Your task to perform on an android device: read, delete, or share a saved page in the chrome app Image 0: 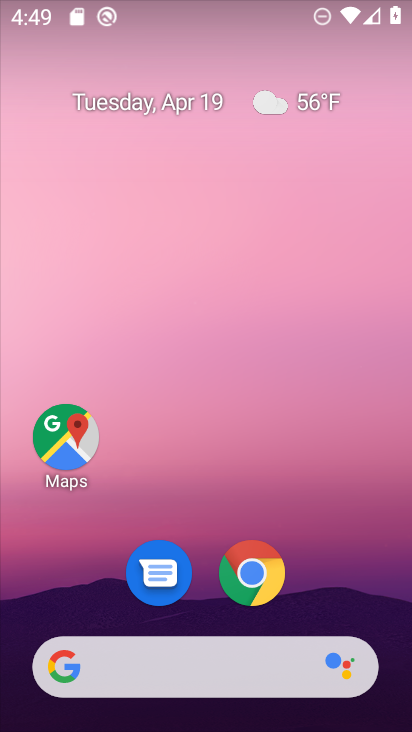
Step 0: click (250, 573)
Your task to perform on an android device: read, delete, or share a saved page in the chrome app Image 1: 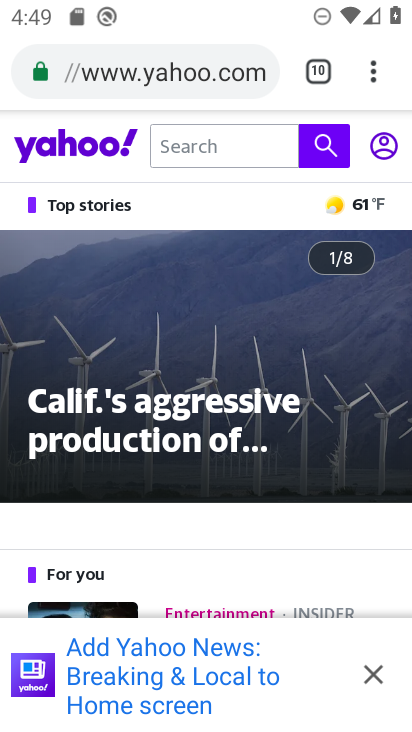
Step 1: click (376, 72)
Your task to perform on an android device: read, delete, or share a saved page in the chrome app Image 2: 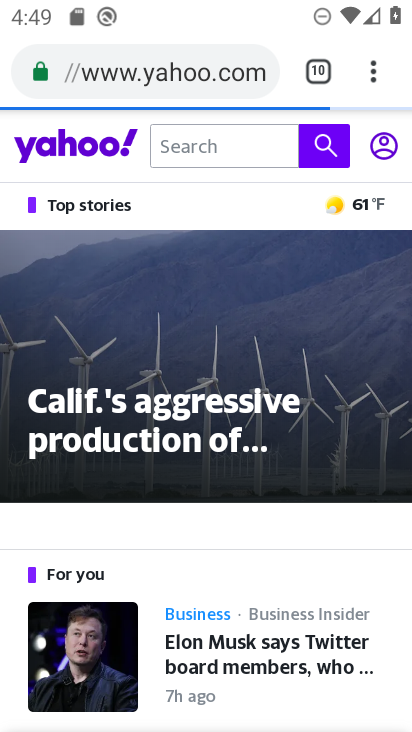
Step 2: click (370, 74)
Your task to perform on an android device: read, delete, or share a saved page in the chrome app Image 3: 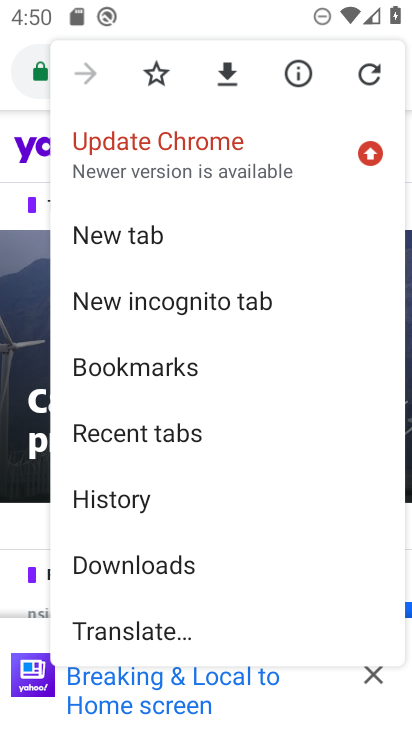
Step 3: drag from (205, 458) to (211, 302)
Your task to perform on an android device: read, delete, or share a saved page in the chrome app Image 4: 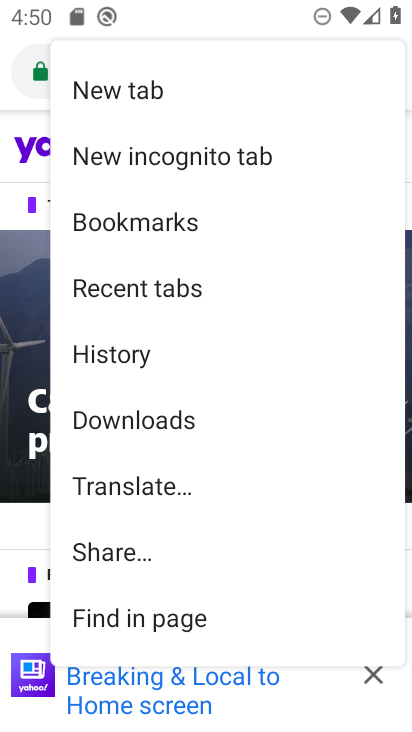
Step 4: click (133, 421)
Your task to perform on an android device: read, delete, or share a saved page in the chrome app Image 5: 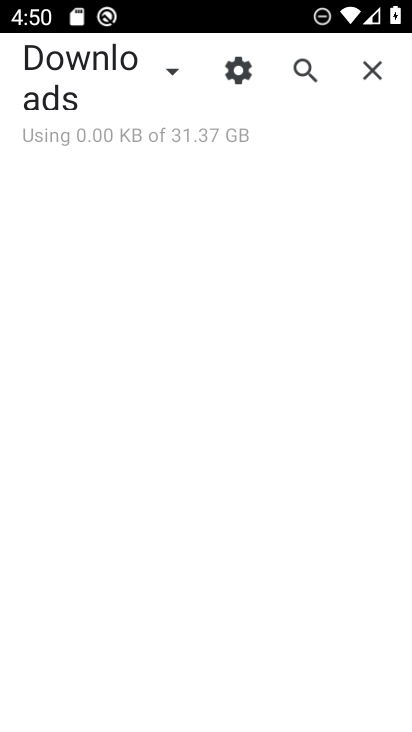
Step 5: click (169, 77)
Your task to perform on an android device: read, delete, or share a saved page in the chrome app Image 6: 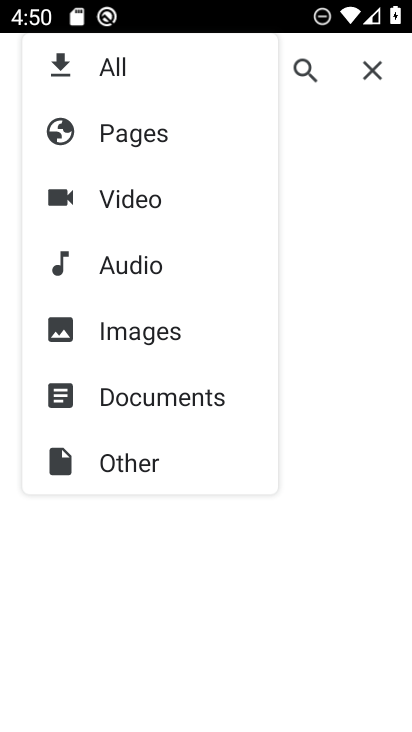
Step 6: click (122, 142)
Your task to perform on an android device: read, delete, or share a saved page in the chrome app Image 7: 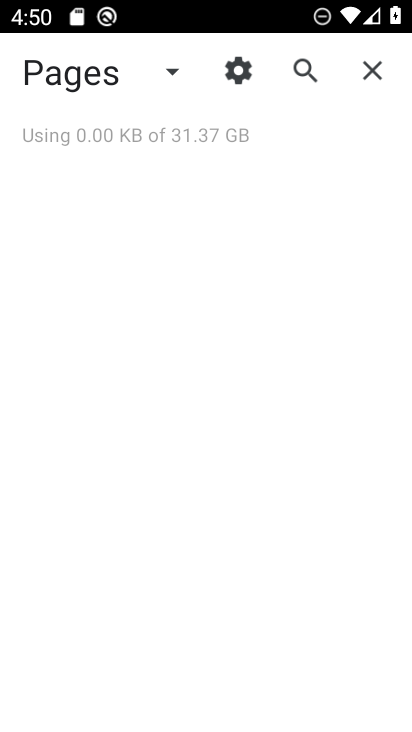
Step 7: click (239, 75)
Your task to perform on an android device: read, delete, or share a saved page in the chrome app Image 8: 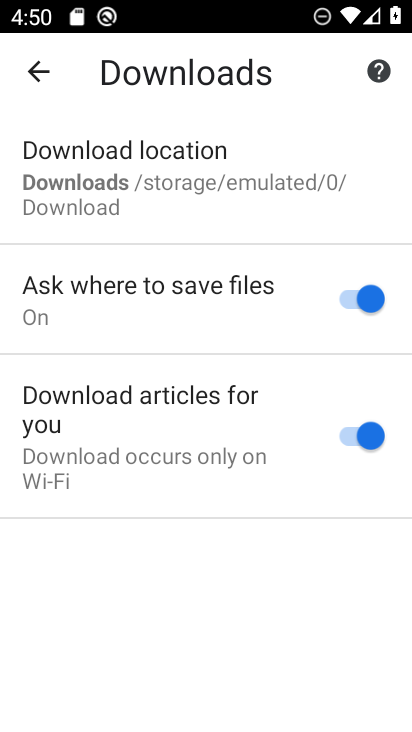
Step 8: click (28, 74)
Your task to perform on an android device: read, delete, or share a saved page in the chrome app Image 9: 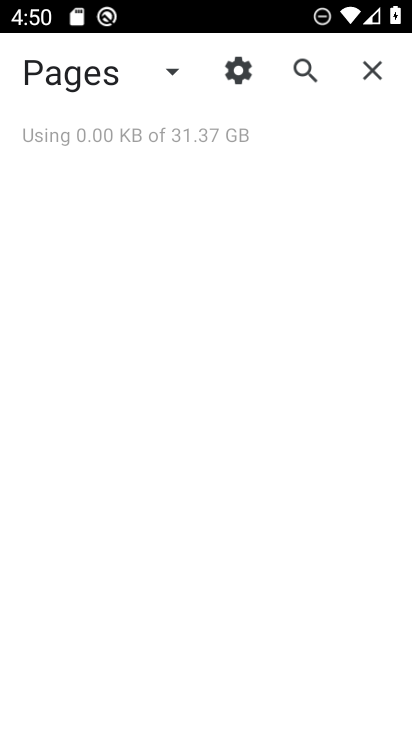
Step 9: task complete